Your task to perform on an android device: make emails show in primary in the gmail app Image 0: 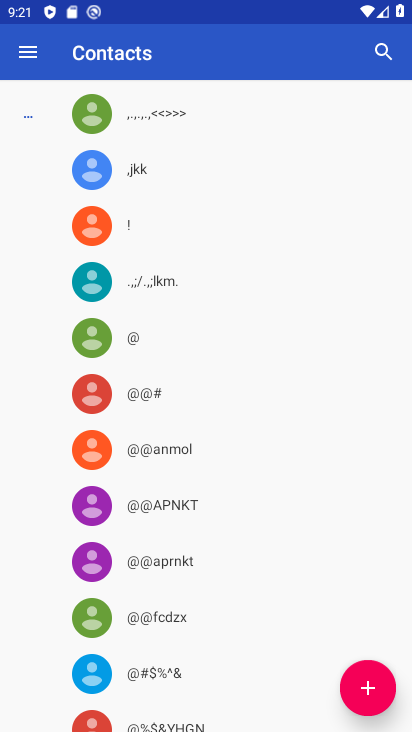
Step 0: press home button
Your task to perform on an android device: make emails show in primary in the gmail app Image 1: 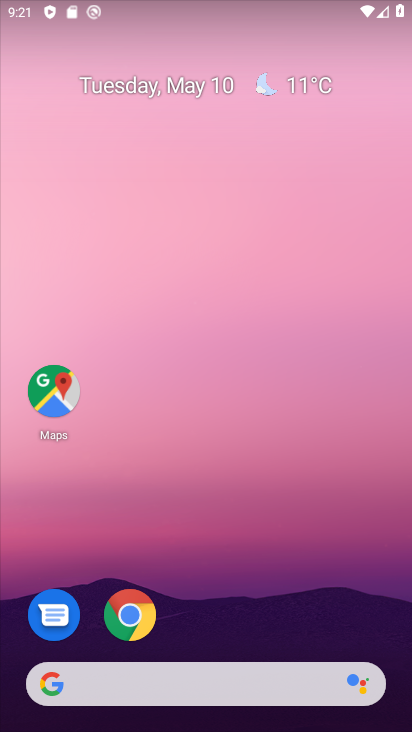
Step 1: drag from (215, 639) to (252, 106)
Your task to perform on an android device: make emails show in primary in the gmail app Image 2: 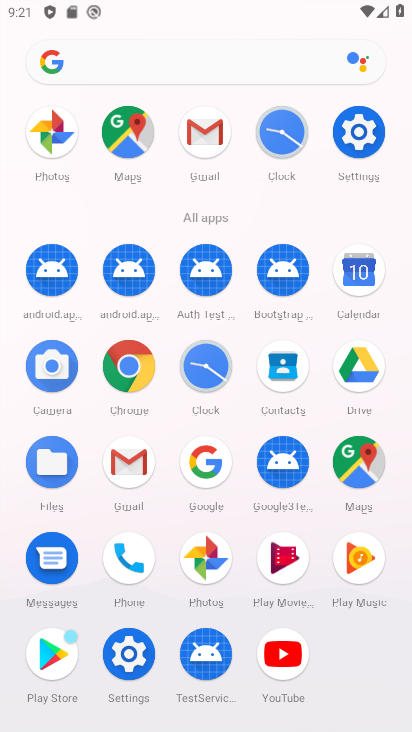
Step 2: click (125, 461)
Your task to perform on an android device: make emails show in primary in the gmail app Image 3: 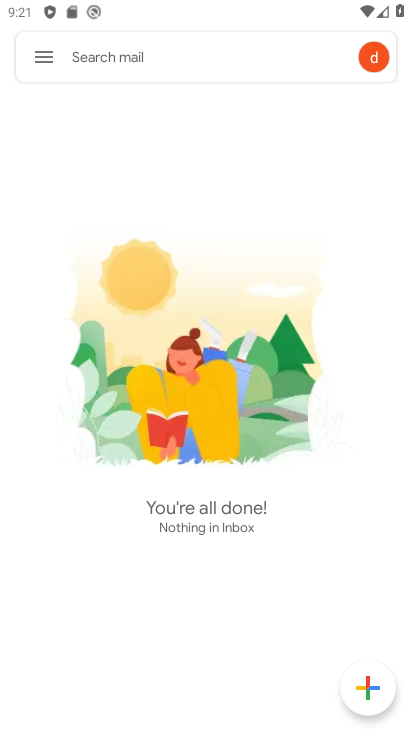
Step 3: task complete